Your task to perform on an android device: turn smart compose on in the gmail app Image 0: 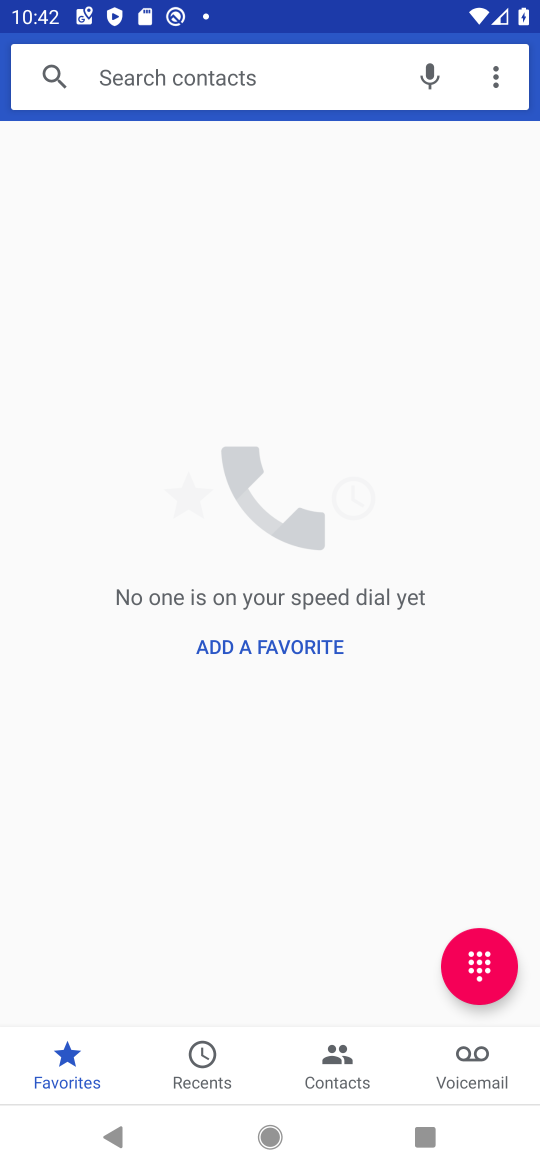
Step 0: press home button
Your task to perform on an android device: turn smart compose on in the gmail app Image 1: 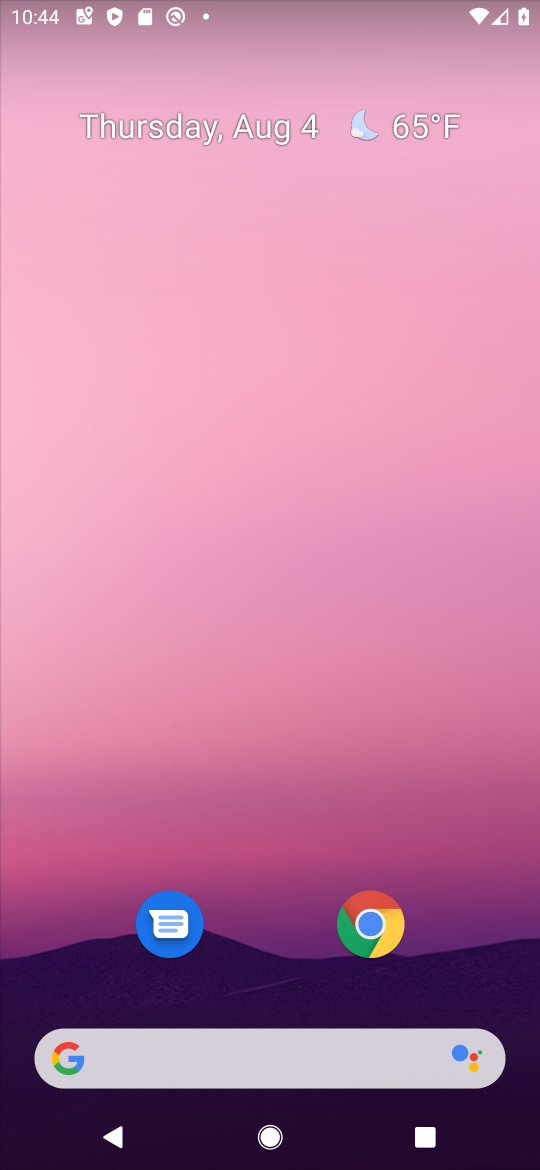
Step 1: click (227, 723)
Your task to perform on an android device: turn smart compose on in the gmail app Image 2: 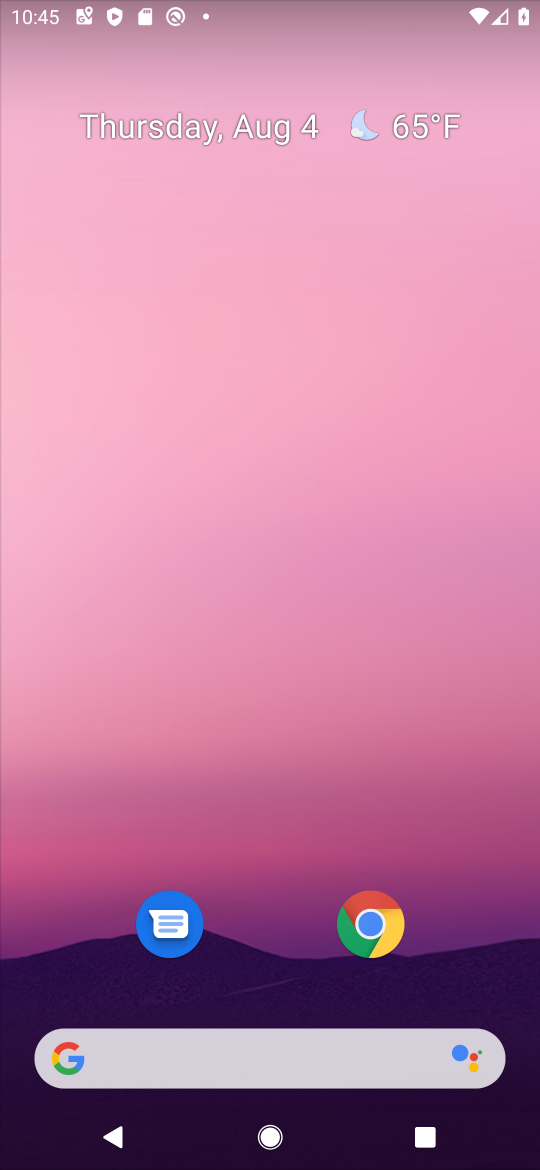
Step 2: drag from (274, 769) to (277, 412)
Your task to perform on an android device: turn smart compose on in the gmail app Image 3: 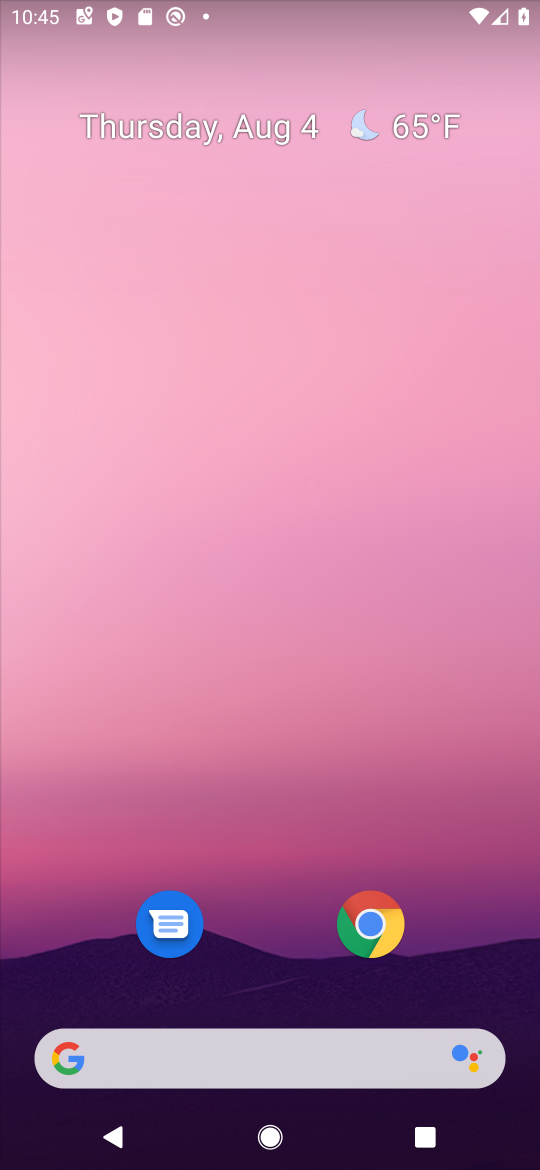
Step 3: drag from (278, 561) to (272, 131)
Your task to perform on an android device: turn smart compose on in the gmail app Image 4: 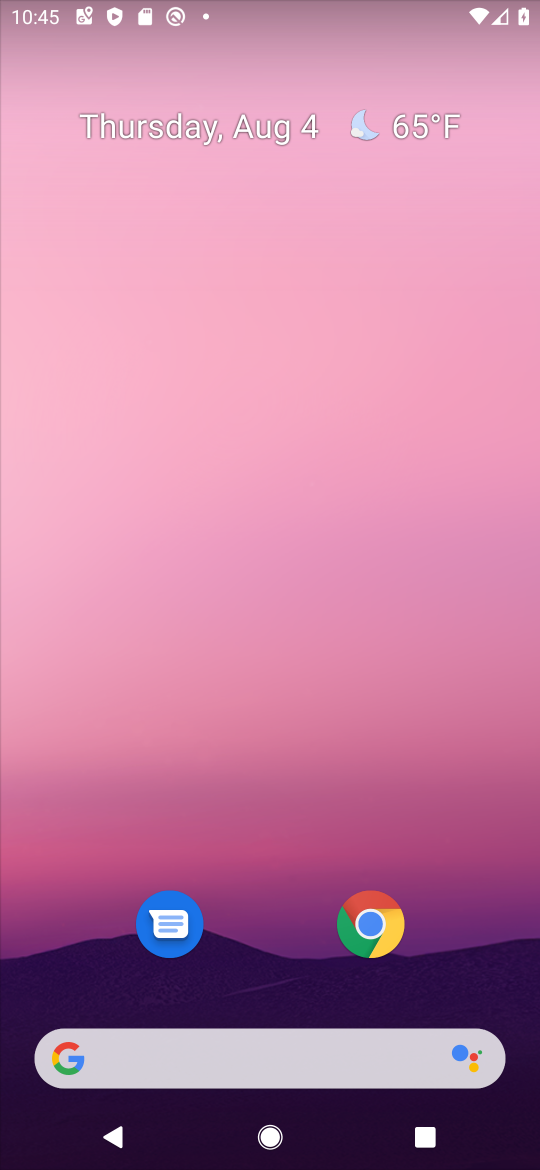
Step 4: drag from (262, 839) to (256, 401)
Your task to perform on an android device: turn smart compose on in the gmail app Image 5: 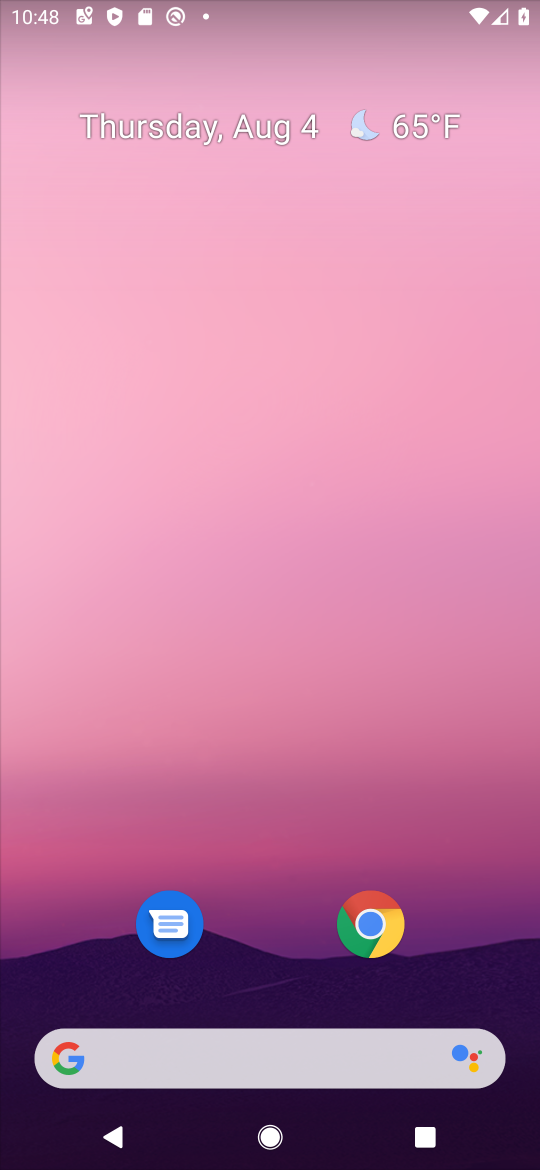
Step 5: click (325, 571)
Your task to perform on an android device: turn smart compose on in the gmail app Image 6: 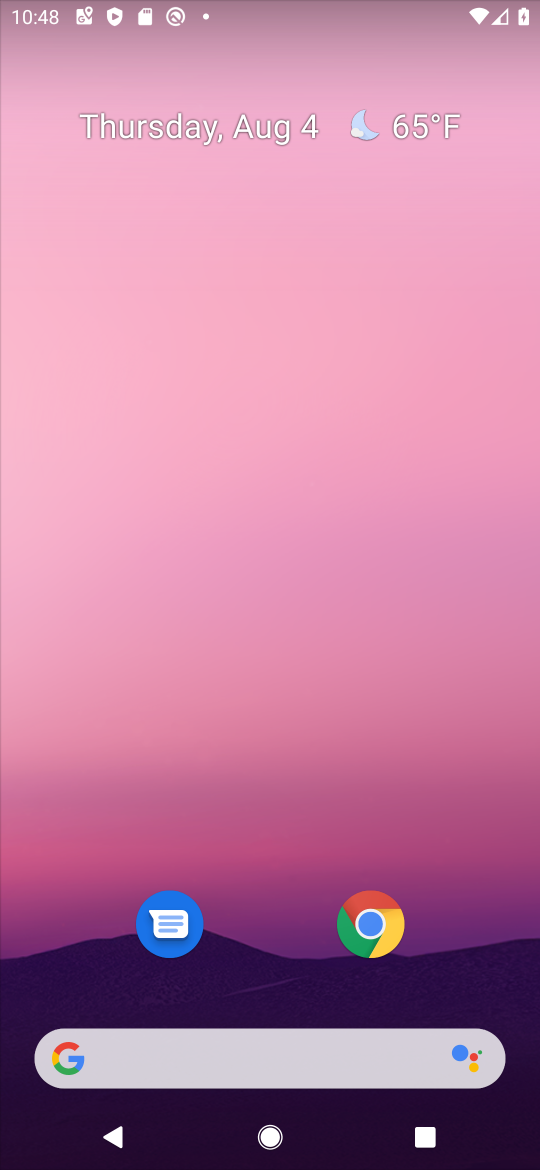
Step 6: drag from (313, 778) to (369, 330)
Your task to perform on an android device: turn smart compose on in the gmail app Image 7: 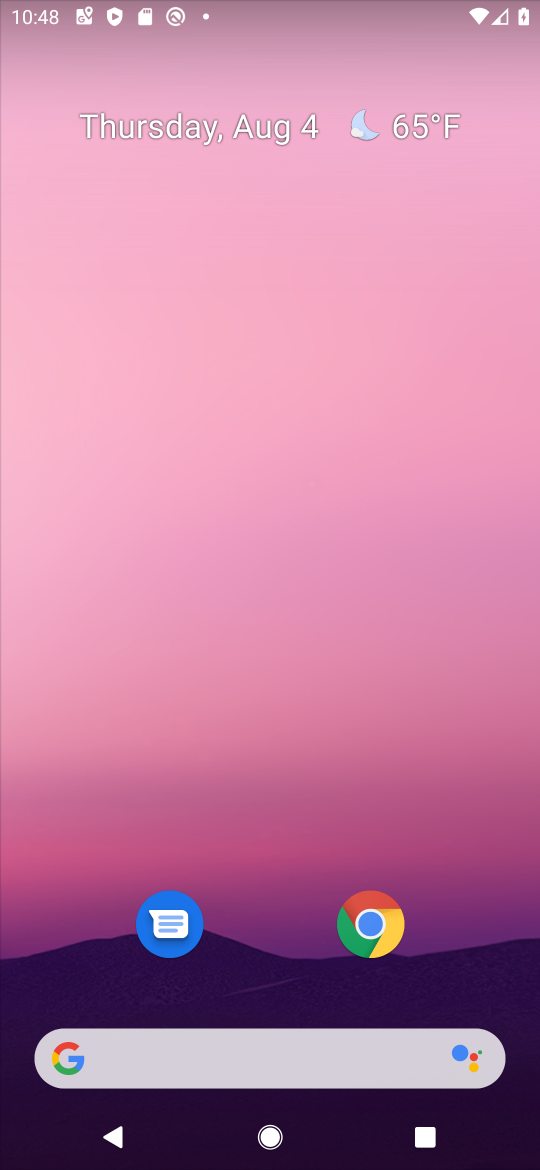
Step 7: drag from (252, 776) to (303, 338)
Your task to perform on an android device: turn smart compose on in the gmail app Image 8: 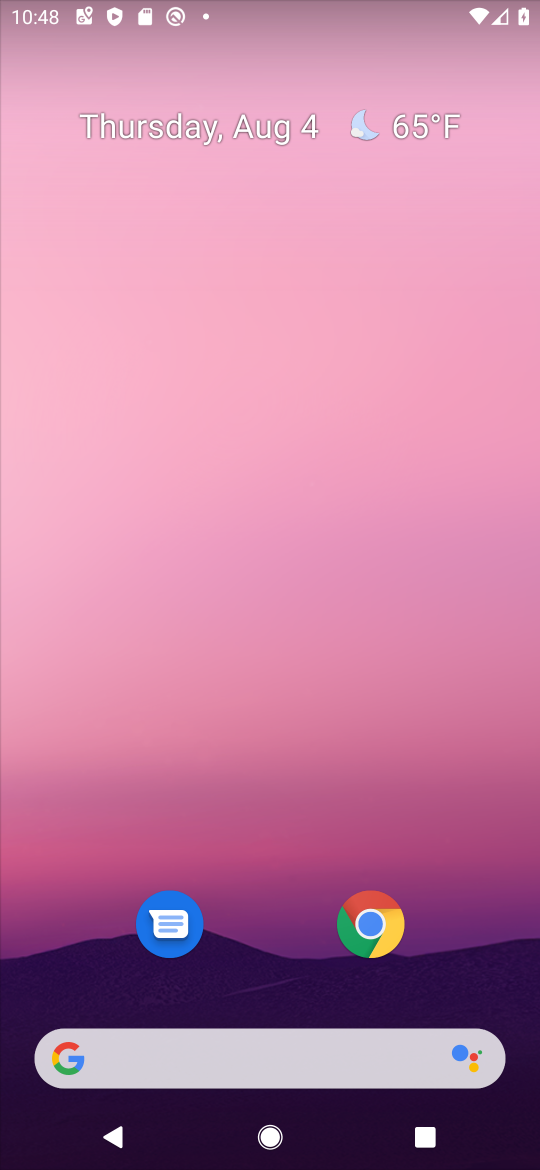
Step 8: drag from (323, 784) to (397, 167)
Your task to perform on an android device: turn smart compose on in the gmail app Image 9: 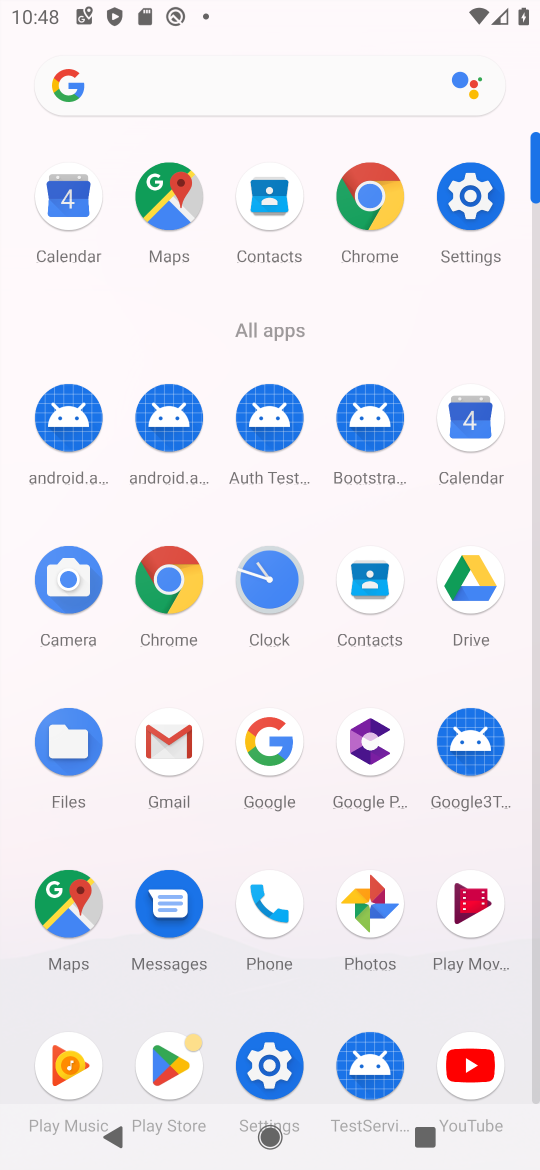
Step 9: click (164, 737)
Your task to perform on an android device: turn smart compose on in the gmail app Image 10: 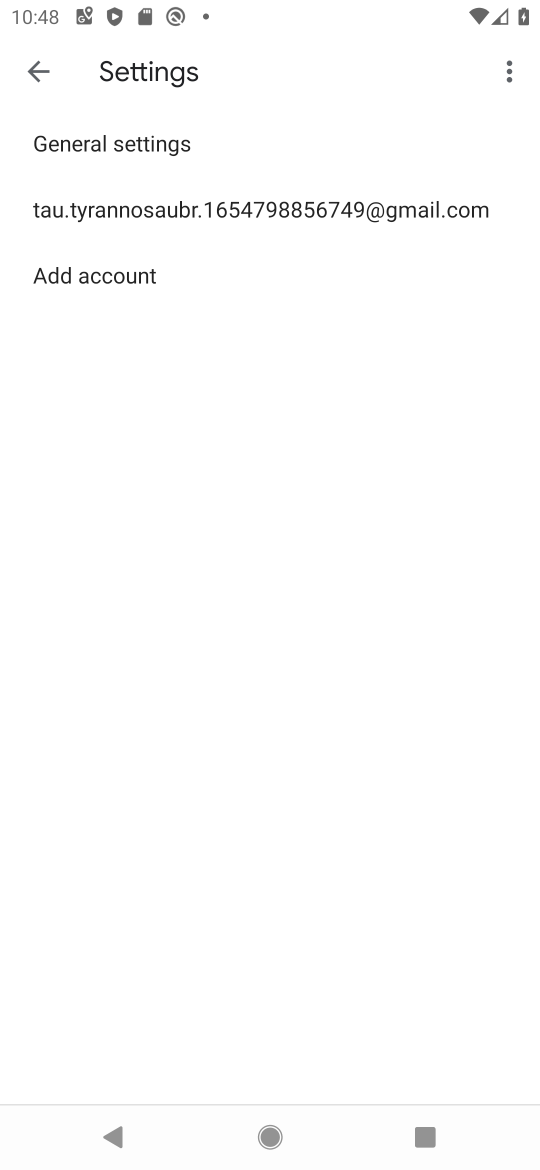
Step 10: task complete